Your task to perform on an android device: Go to CNN.com Image 0: 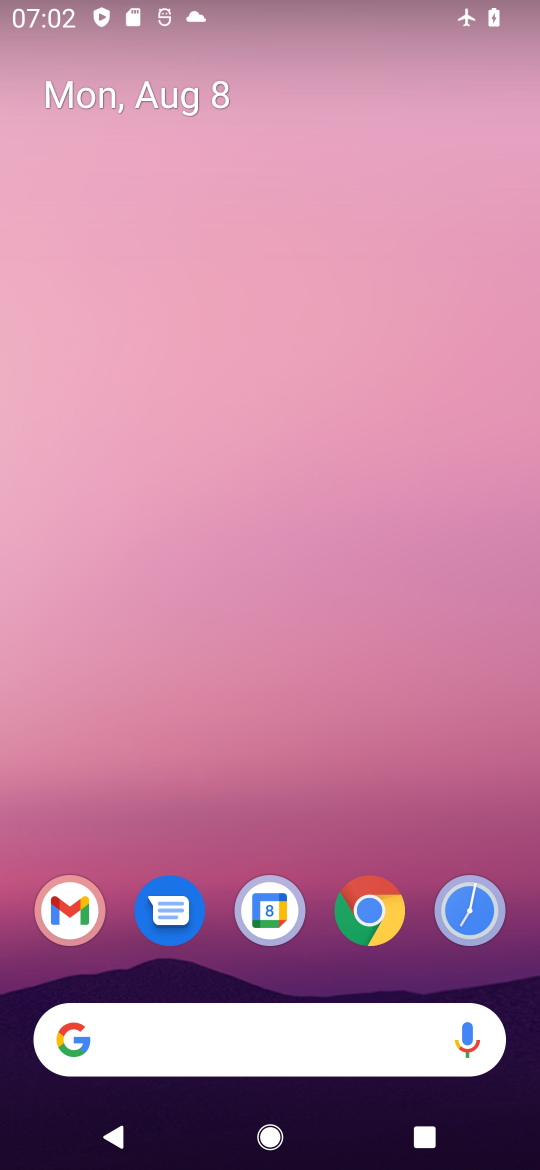
Step 0: click (369, 911)
Your task to perform on an android device: Go to CNN.com Image 1: 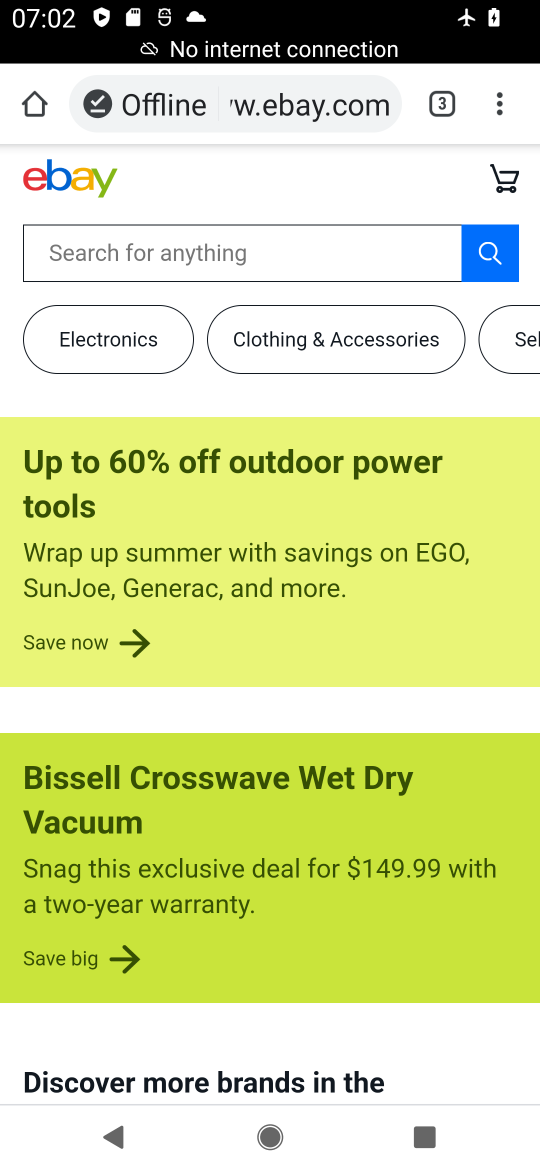
Step 1: click (334, 111)
Your task to perform on an android device: Go to CNN.com Image 2: 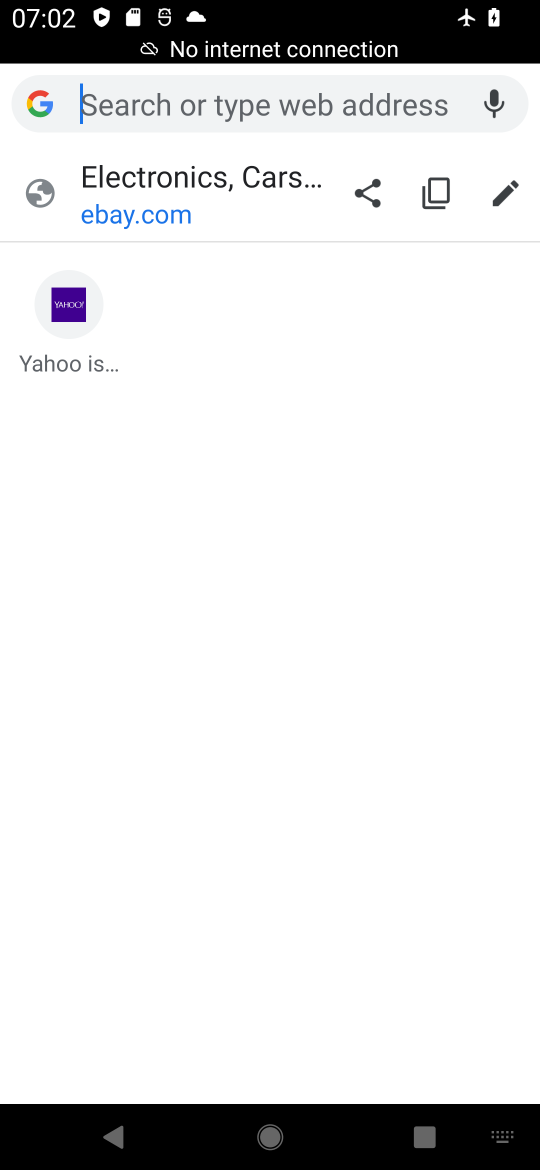
Step 2: click (237, 105)
Your task to perform on an android device: Go to CNN.com Image 3: 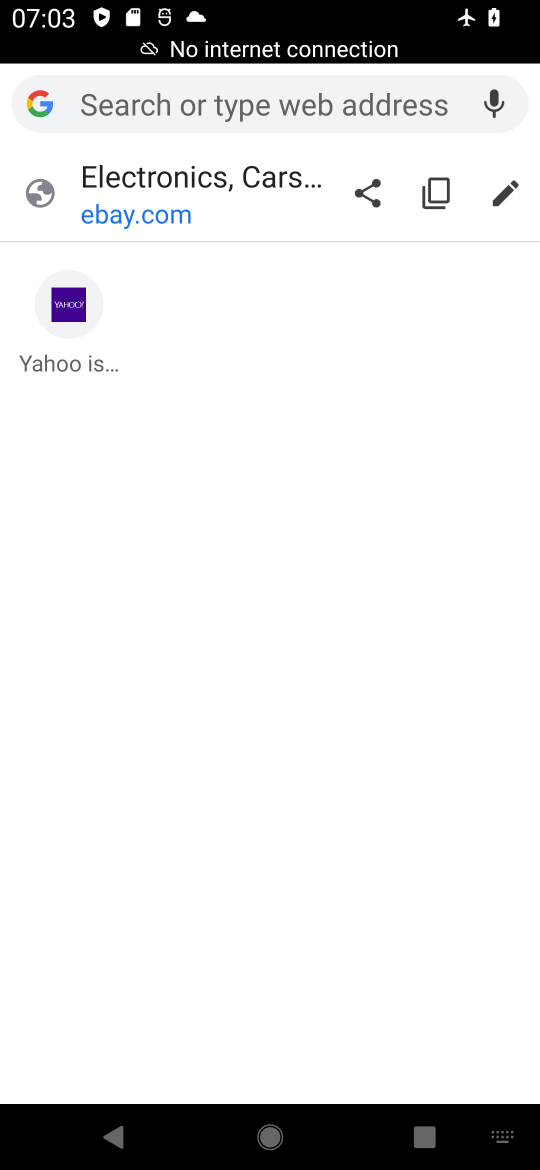
Step 3: type "CNN.com"
Your task to perform on an android device: Go to CNN.com Image 4: 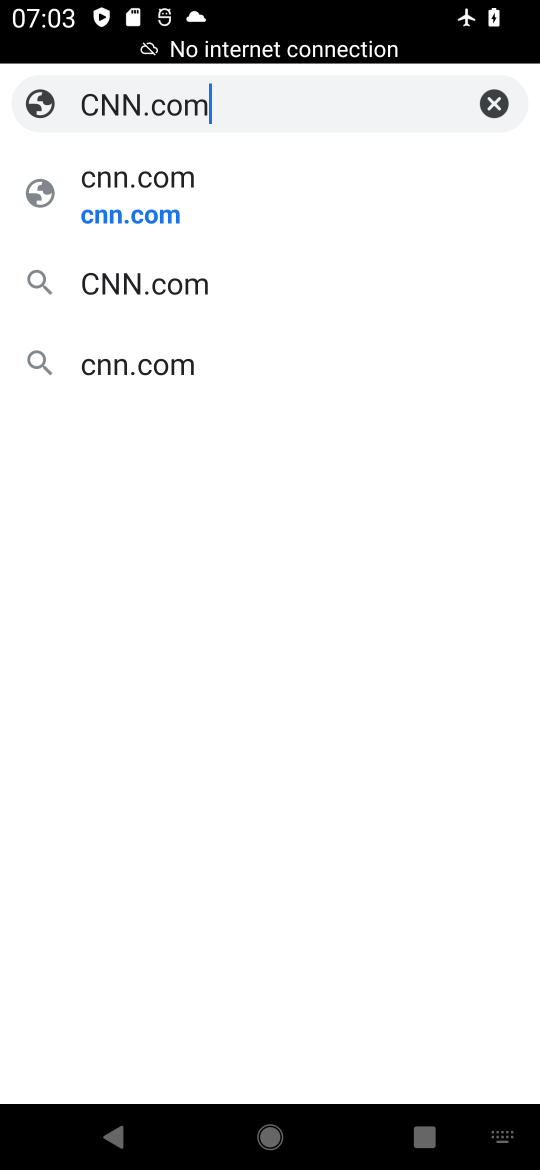
Step 4: click (150, 285)
Your task to perform on an android device: Go to CNN.com Image 5: 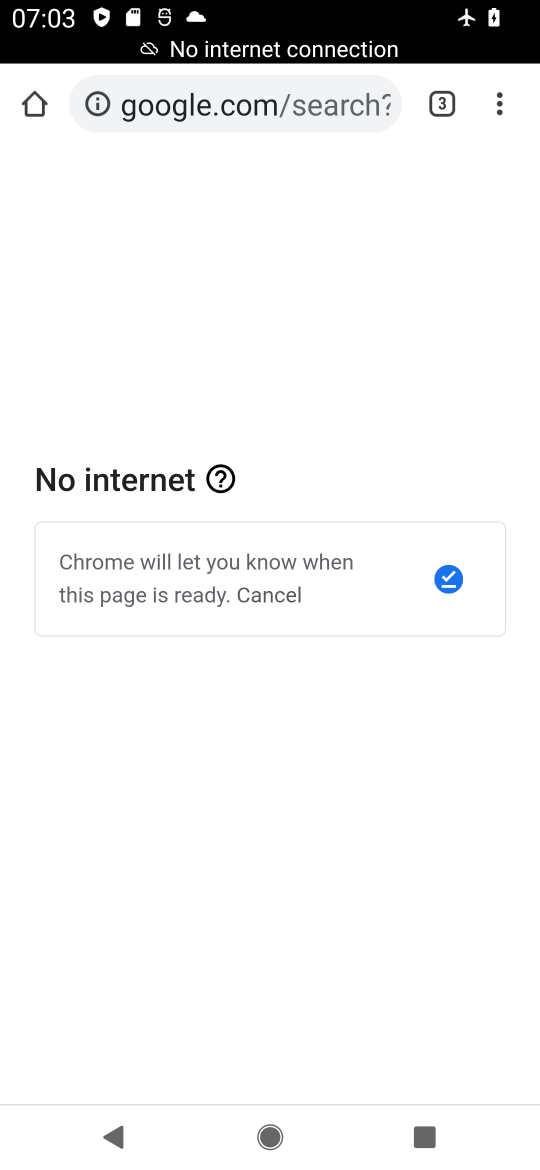
Step 5: task complete